Your task to perform on an android device: Open Youtube and go to the subscriptions tab Image 0: 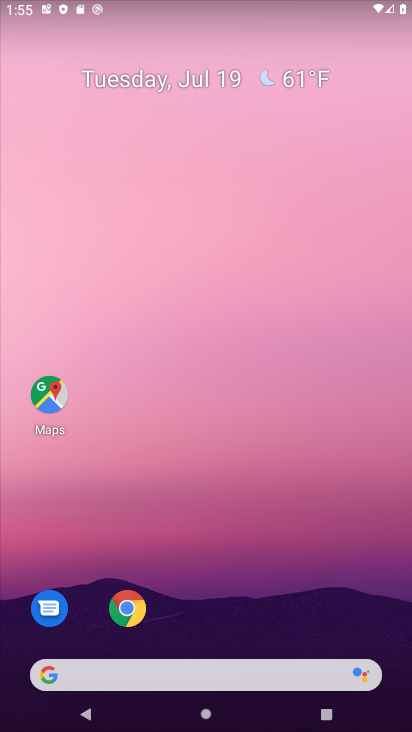
Step 0: drag from (322, 651) to (322, 0)
Your task to perform on an android device: Open Youtube and go to the subscriptions tab Image 1: 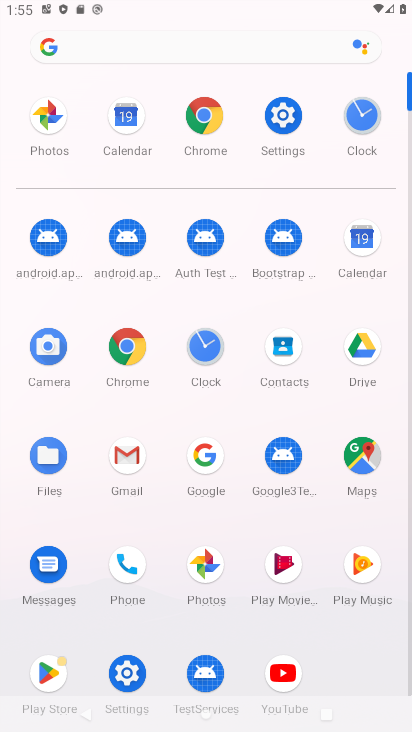
Step 1: click (273, 675)
Your task to perform on an android device: Open Youtube and go to the subscriptions tab Image 2: 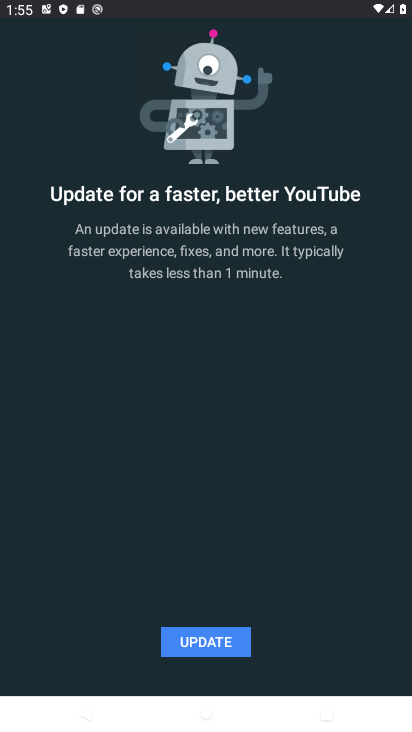
Step 2: click (226, 647)
Your task to perform on an android device: Open Youtube and go to the subscriptions tab Image 3: 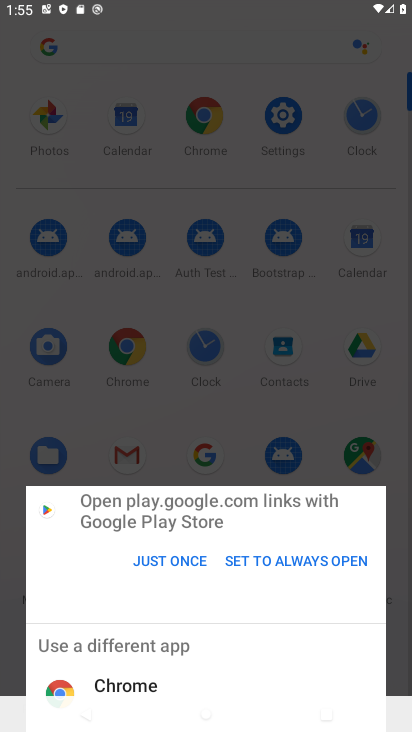
Step 3: click (156, 562)
Your task to perform on an android device: Open Youtube and go to the subscriptions tab Image 4: 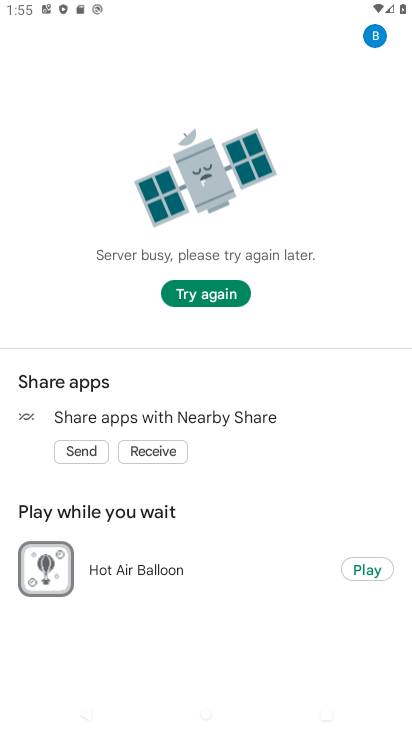
Step 4: click (209, 300)
Your task to perform on an android device: Open Youtube and go to the subscriptions tab Image 5: 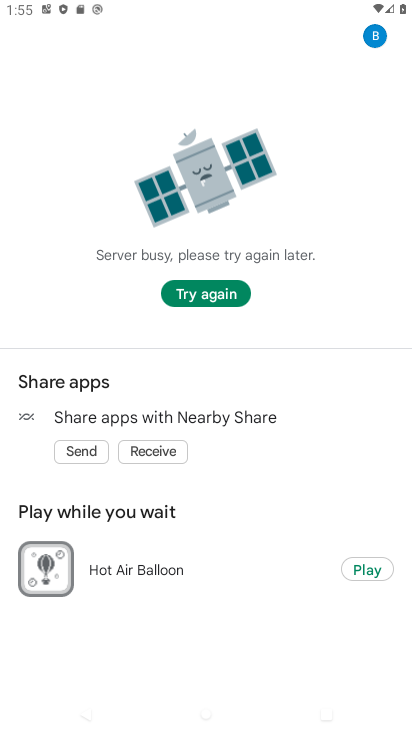
Step 5: task complete